Your task to perform on an android device: allow notifications from all sites in the chrome app Image 0: 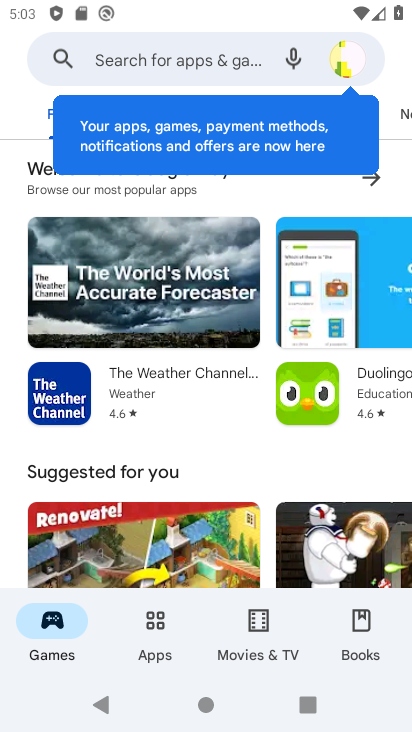
Step 0: press home button
Your task to perform on an android device: allow notifications from all sites in the chrome app Image 1: 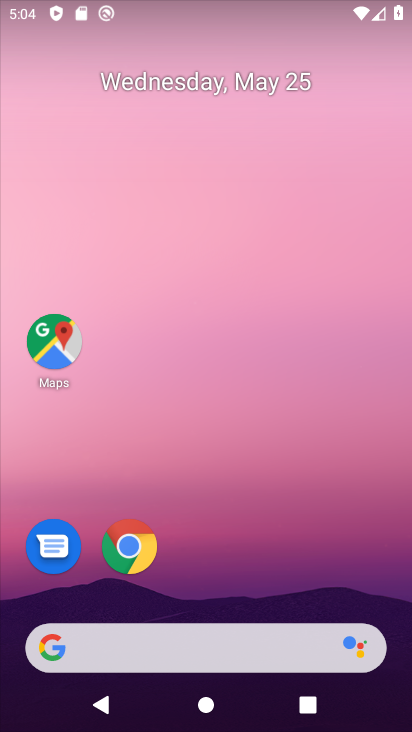
Step 1: click (124, 548)
Your task to perform on an android device: allow notifications from all sites in the chrome app Image 2: 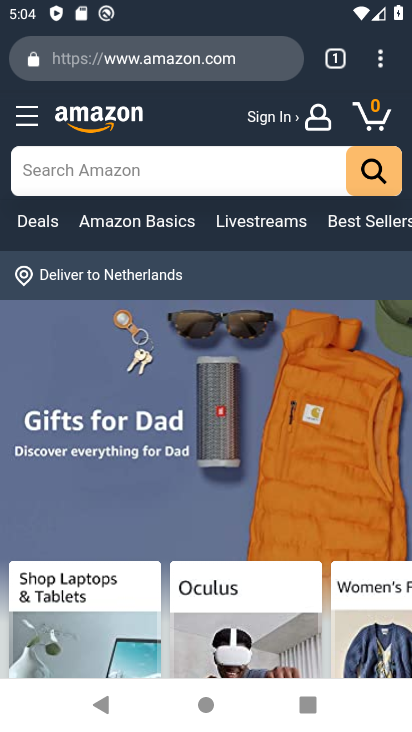
Step 2: click (379, 58)
Your task to perform on an android device: allow notifications from all sites in the chrome app Image 3: 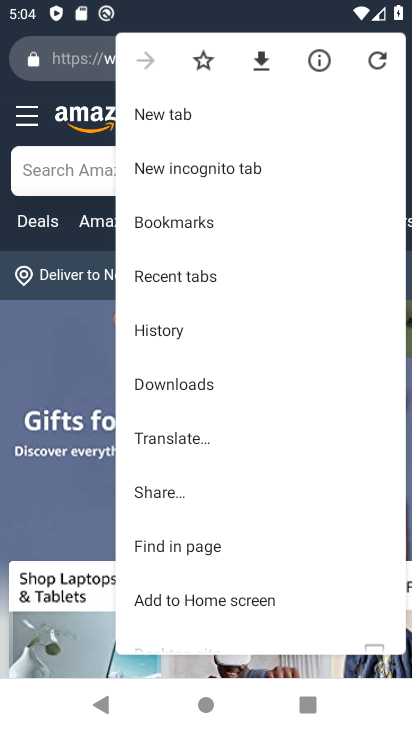
Step 3: drag from (233, 401) to (227, 2)
Your task to perform on an android device: allow notifications from all sites in the chrome app Image 4: 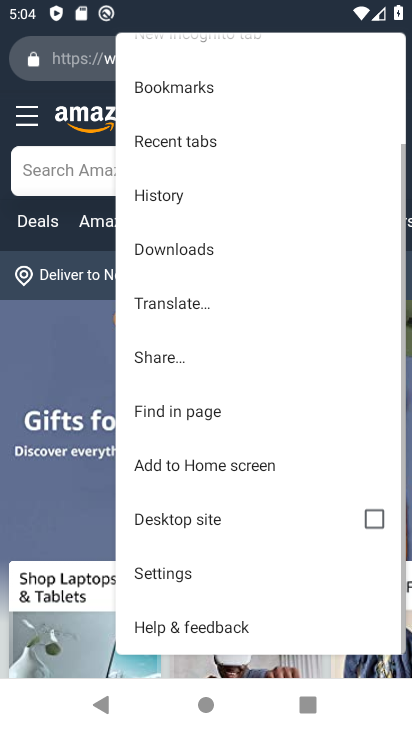
Step 4: click (180, 570)
Your task to perform on an android device: allow notifications from all sites in the chrome app Image 5: 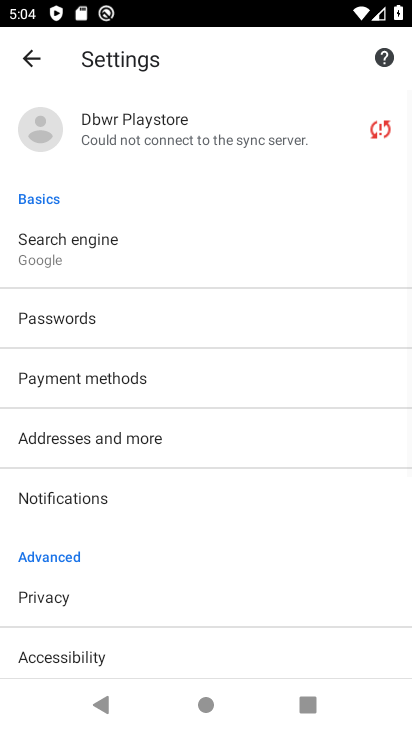
Step 5: click (115, 498)
Your task to perform on an android device: allow notifications from all sites in the chrome app Image 6: 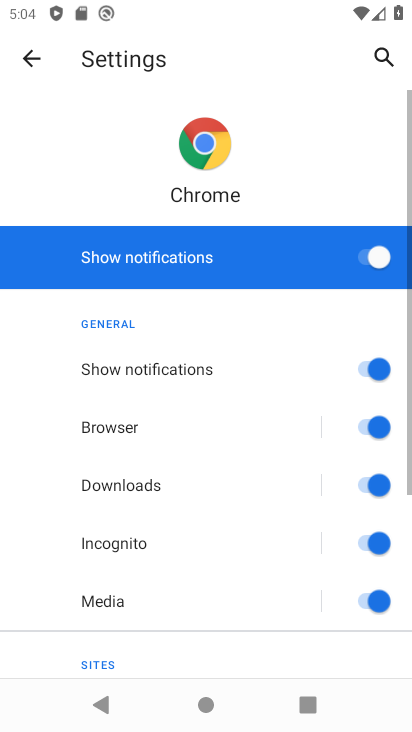
Step 6: task complete